Your task to perform on an android device: open app "DoorDash - Food Delivery" Image 0: 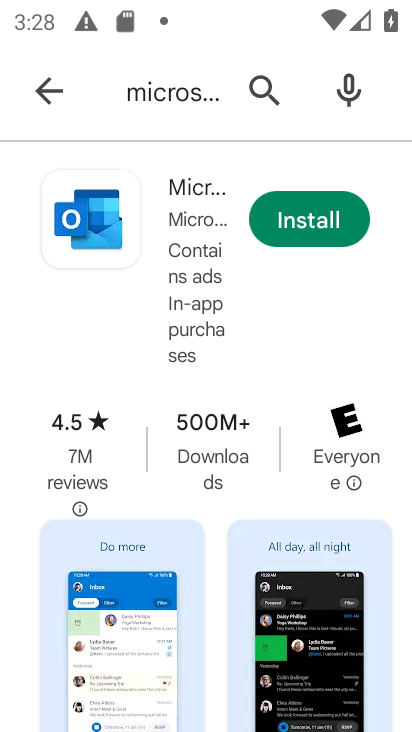
Step 0: press home button
Your task to perform on an android device: open app "DoorDash - Food Delivery" Image 1: 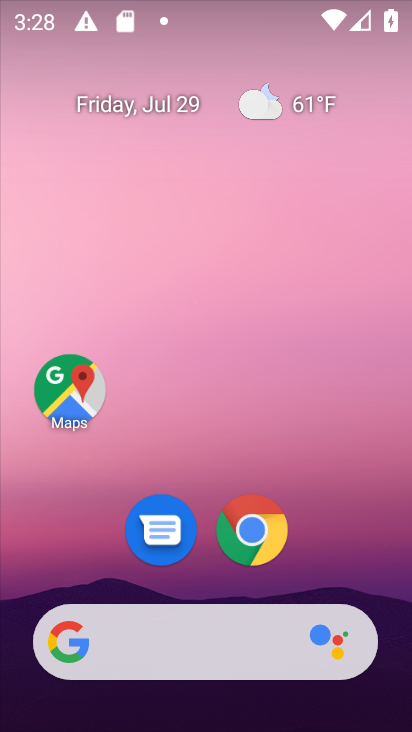
Step 1: drag from (302, 525) to (309, 39)
Your task to perform on an android device: open app "DoorDash - Food Delivery" Image 2: 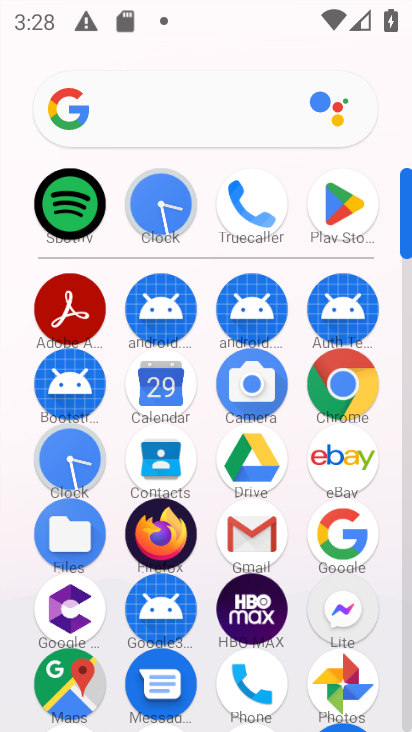
Step 2: click (330, 205)
Your task to perform on an android device: open app "DoorDash - Food Delivery" Image 3: 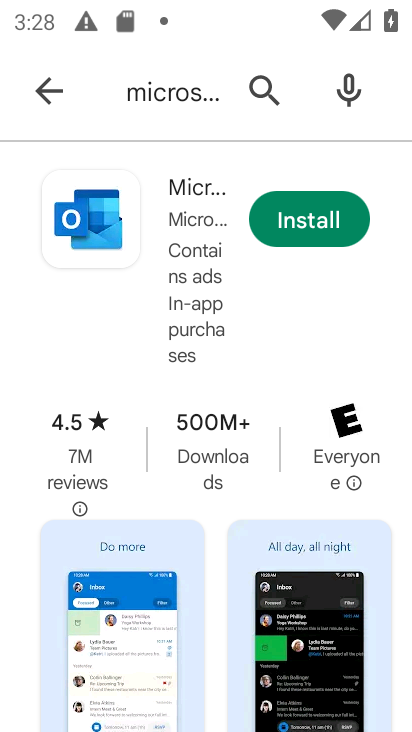
Step 3: click (247, 90)
Your task to perform on an android device: open app "DoorDash - Food Delivery" Image 4: 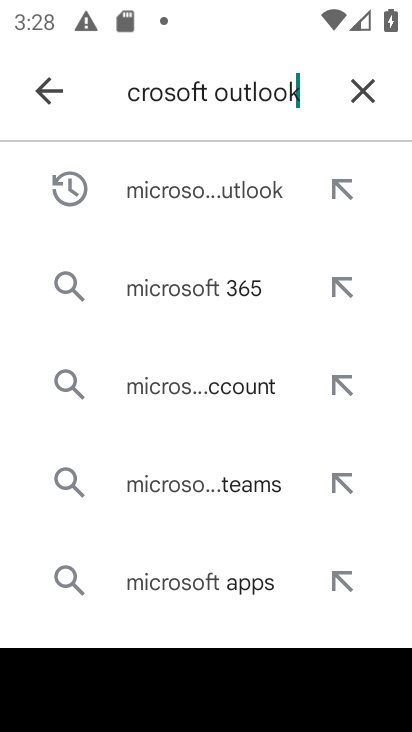
Step 4: click (366, 96)
Your task to perform on an android device: open app "DoorDash - Food Delivery" Image 5: 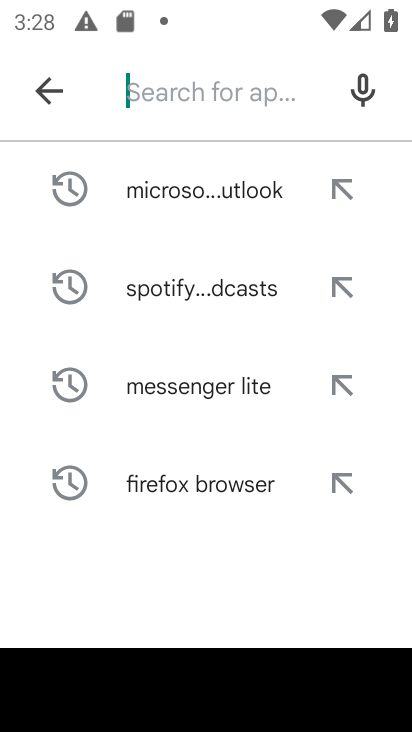
Step 5: type "DoorDash - Food Delivery"
Your task to perform on an android device: open app "DoorDash - Food Delivery" Image 6: 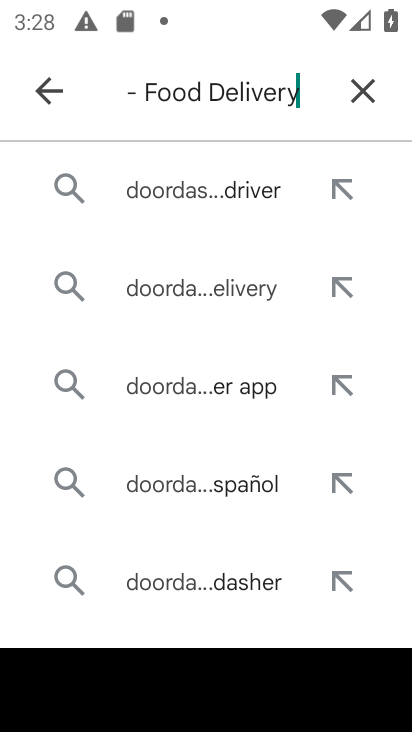
Step 6: click (196, 288)
Your task to perform on an android device: open app "DoorDash - Food Delivery" Image 7: 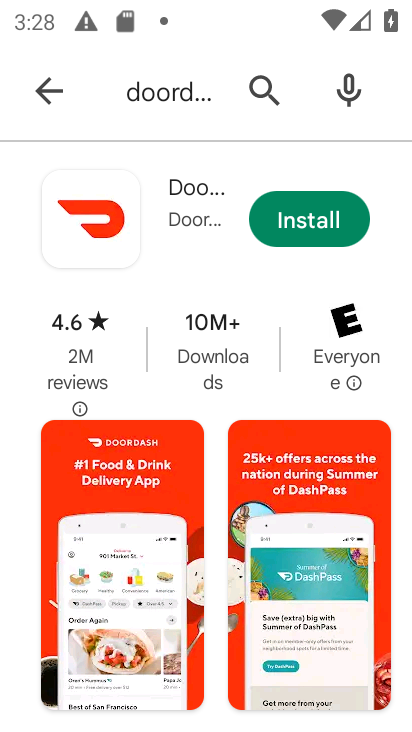
Step 7: task complete